Your task to perform on an android device: read, delete, or share a saved page in the chrome app Image 0: 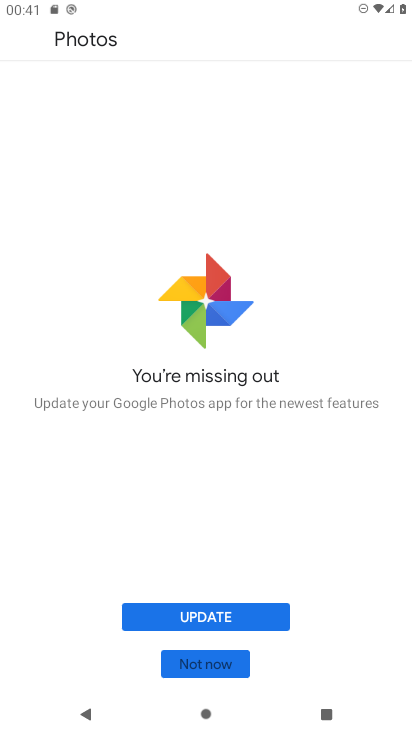
Step 0: press home button
Your task to perform on an android device: read, delete, or share a saved page in the chrome app Image 1: 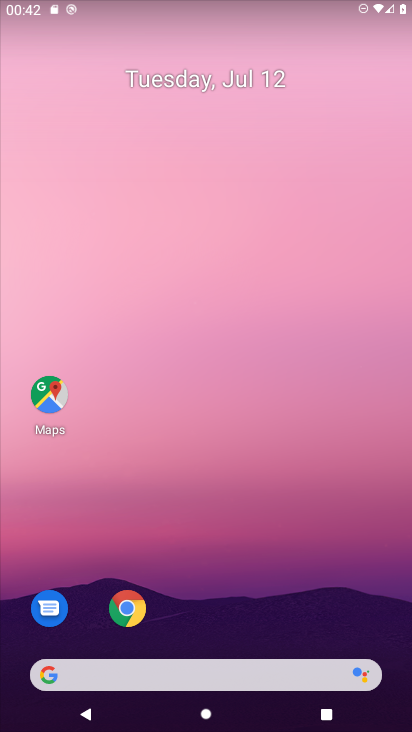
Step 1: drag from (166, 637) to (401, 500)
Your task to perform on an android device: read, delete, or share a saved page in the chrome app Image 2: 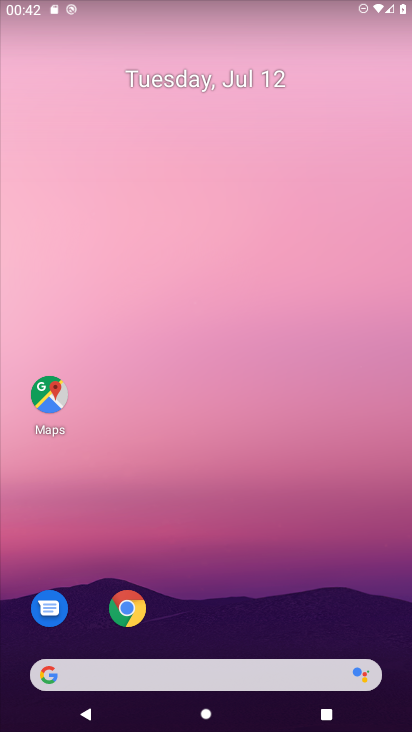
Step 2: drag from (214, 639) to (374, 347)
Your task to perform on an android device: read, delete, or share a saved page in the chrome app Image 3: 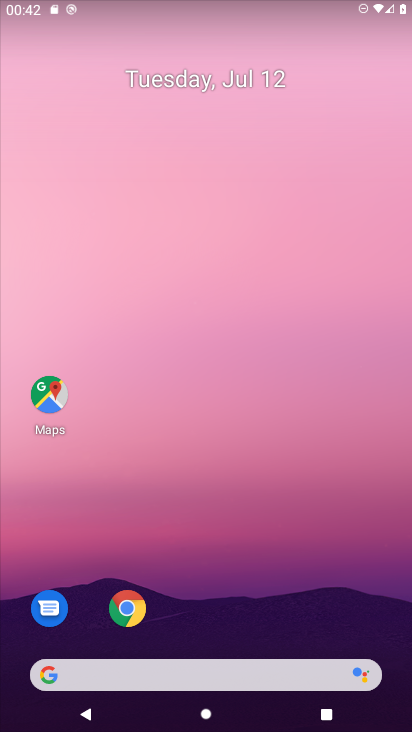
Step 3: click (149, 620)
Your task to perform on an android device: read, delete, or share a saved page in the chrome app Image 4: 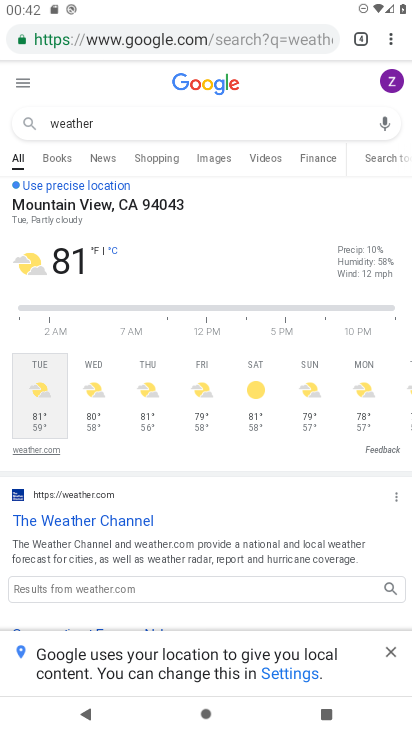
Step 4: task complete